Your task to perform on an android device: Open Google Maps Image 0: 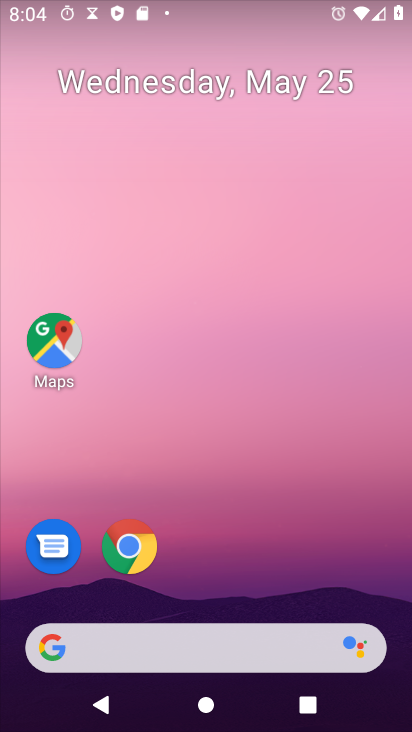
Step 0: click (60, 354)
Your task to perform on an android device: Open Google Maps Image 1: 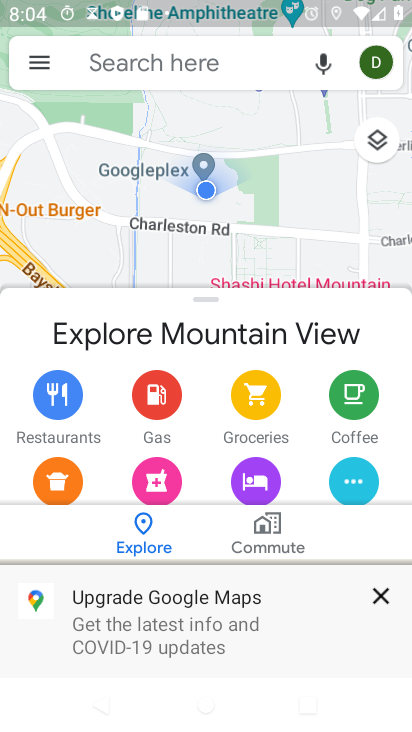
Step 1: task complete